Your task to perform on an android device: Open Google Maps and go to "Timeline" Image 0: 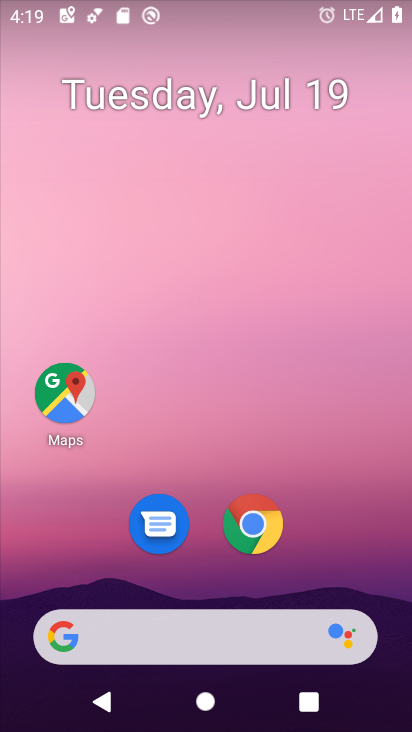
Step 0: click (72, 389)
Your task to perform on an android device: Open Google Maps and go to "Timeline" Image 1: 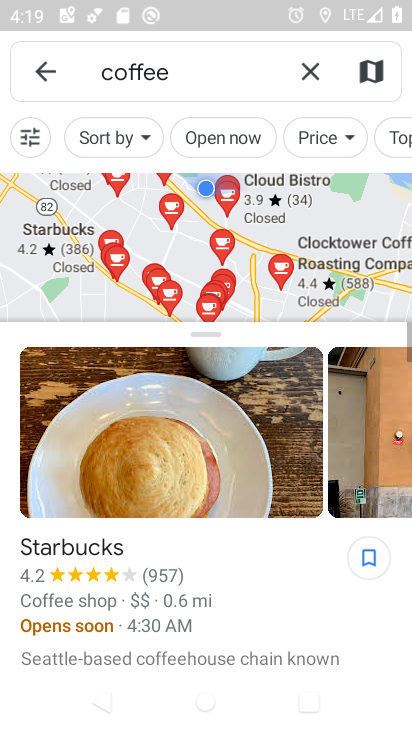
Step 1: click (304, 66)
Your task to perform on an android device: Open Google Maps and go to "Timeline" Image 2: 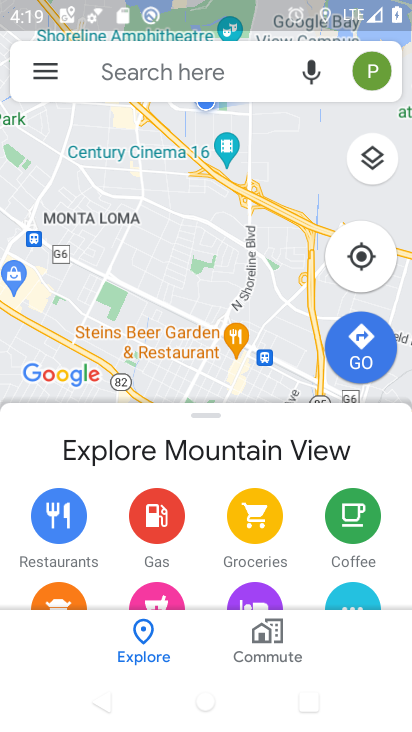
Step 2: click (46, 68)
Your task to perform on an android device: Open Google Maps and go to "Timeline" Image 3: 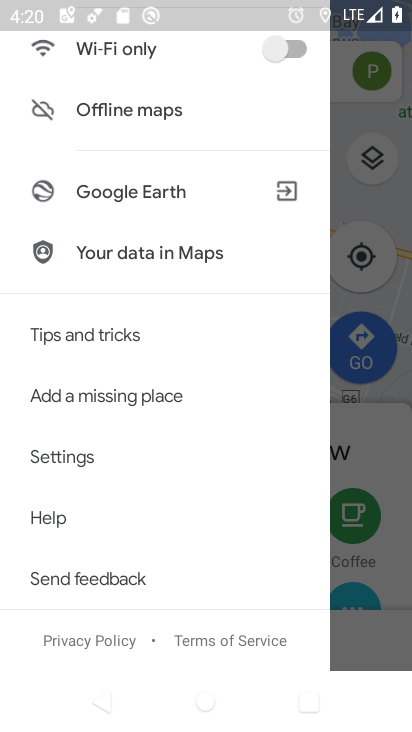
Step 3: drag from (97, 64) to (108, 632)
Your task to perform on an android device: Open Google Maps and go to "Timeline" Image 4: 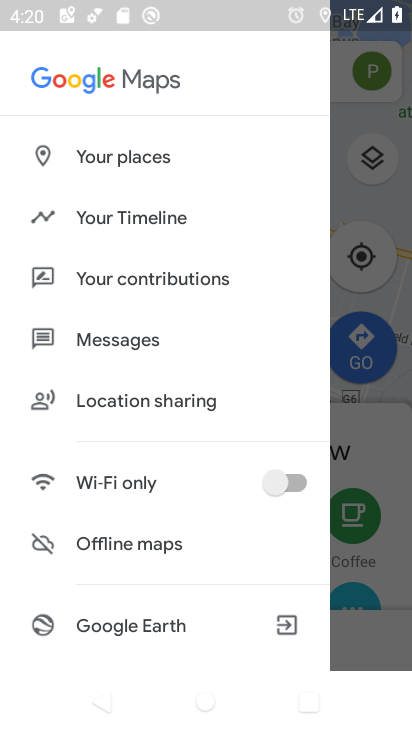
Step 4: click (151, 220)
Your task to perform on an android device: Open Google Maps and go to "Timeline" Image 5: 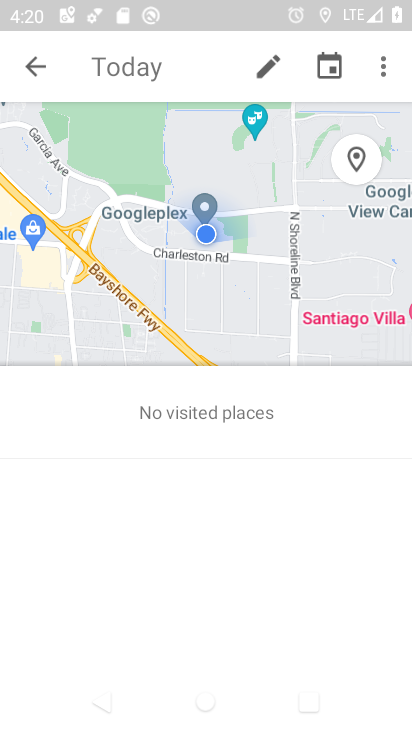
Step 5: task complete